Your task to perform on an android device: toggle notification dots Image 0: 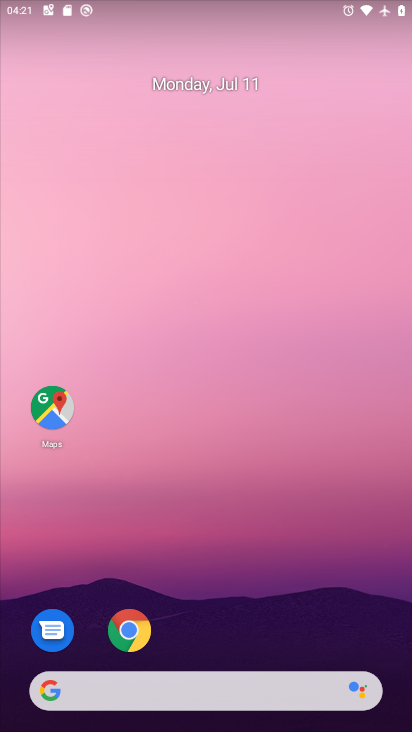
Step 0: drag from (313, 611) to (363, 228)
Your task to perform on an android device: toggle notification dots Image 1: 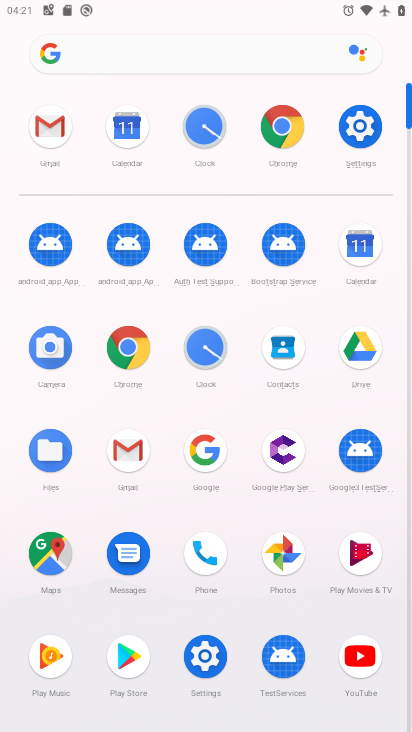
Step 1: click (369, 139)
Your task to perform on an android device: toggle notification dots Image 2: 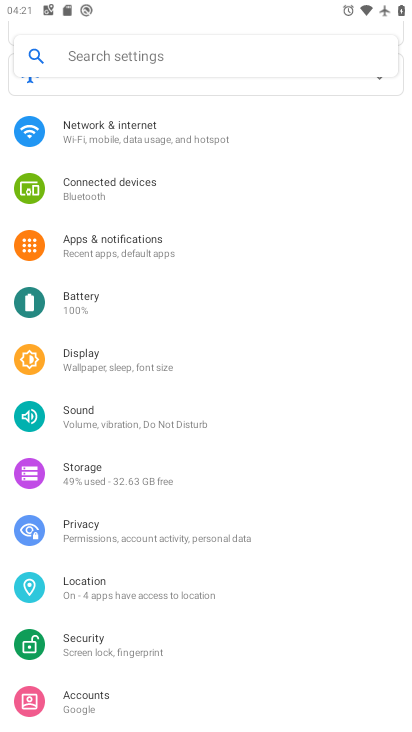
Step 2: click (143, 251)
Your task to perform on an android device: toggle notification dots Image 3: 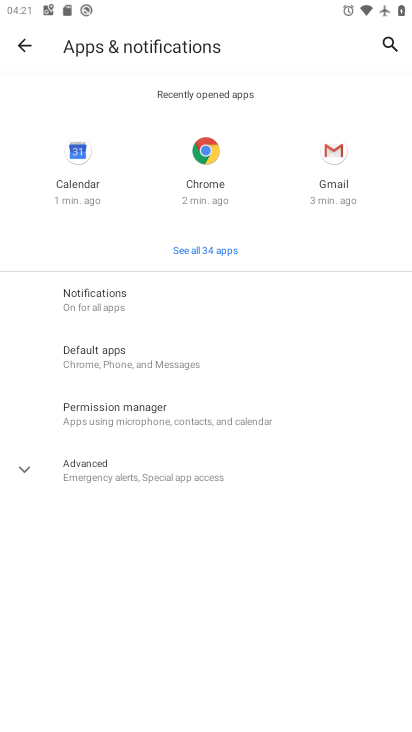
Step 3: click (142, 298)
Your task to perform on an android device: toggle notification dots Image 4: 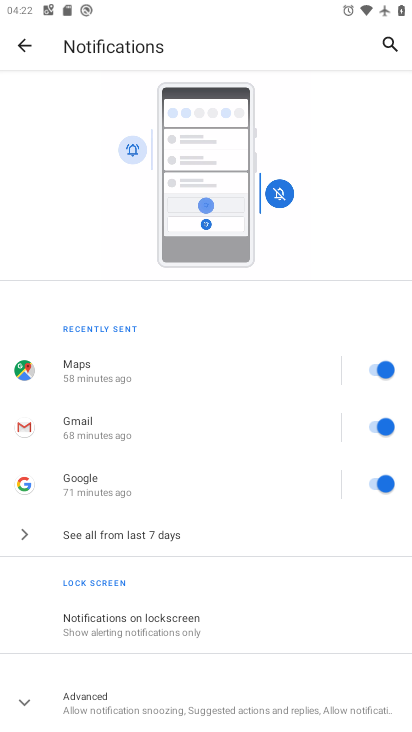
Step 4: click (206, 701)
Your task to perform on an android device: toggle notification dots Image 5: 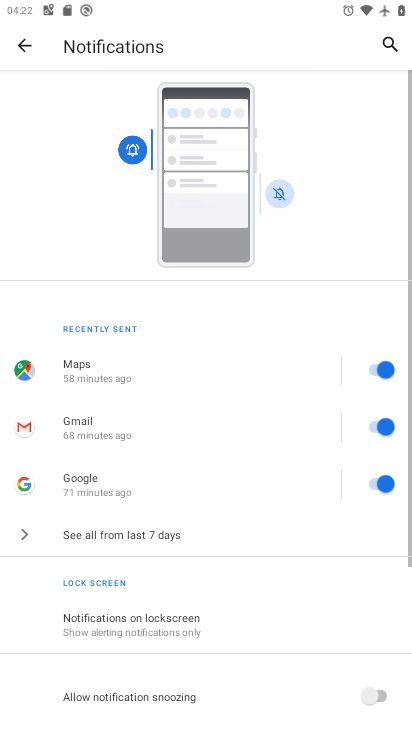
Step 5: drag from (212, 695) to (231, 265)
Your task to perform on an android device: toggle notification dots Image 6: 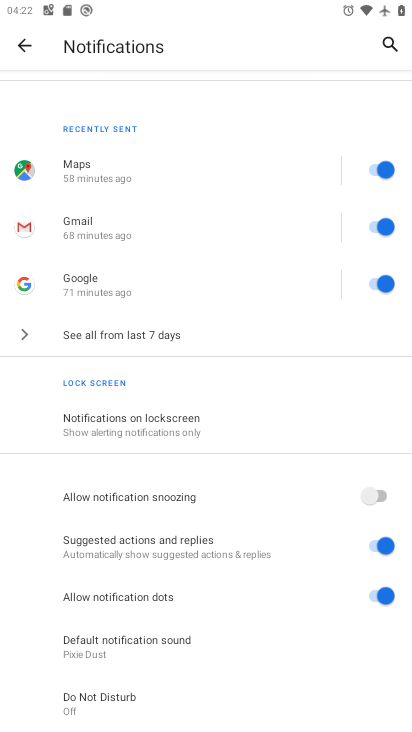
Step 6: click (384, 604)
Your task to perform on an android device: toggle notification dots Image 7: 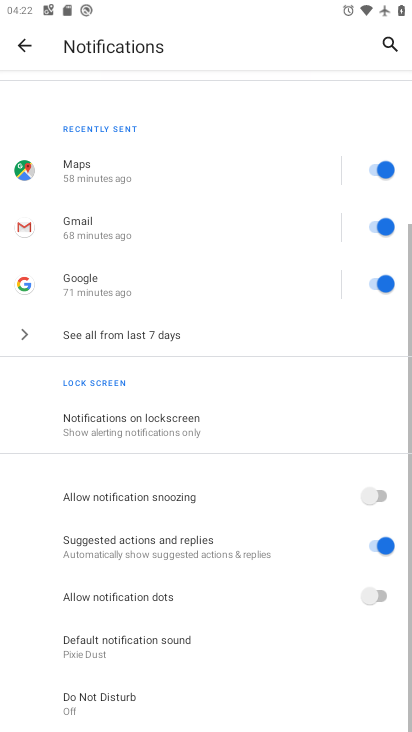
Step 7: task complete